Your task to perform on an android device: find snoozed emails in the gmail app Image 0: 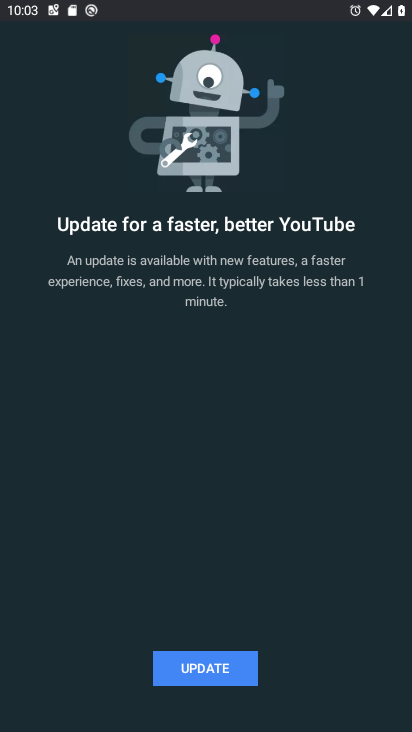
Step 0: press home button
Your task to perform on an android device: find snoozed emails in the gmail app Image 1: 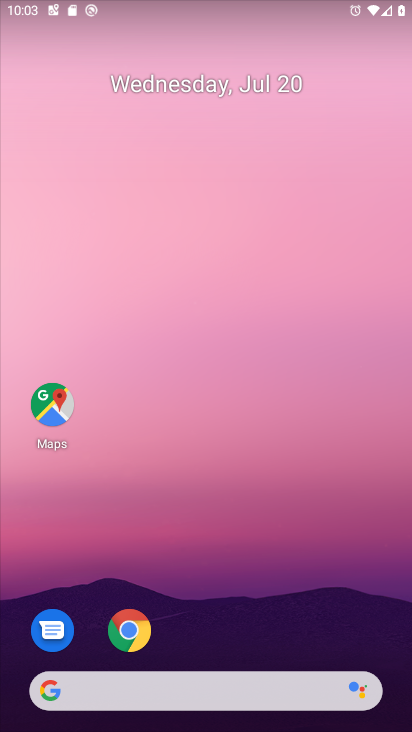
Step 1: drag from (248, 693) to (196, 93)
Your task to perform on an android device: find snoozed emails in the gmail app Image 2: 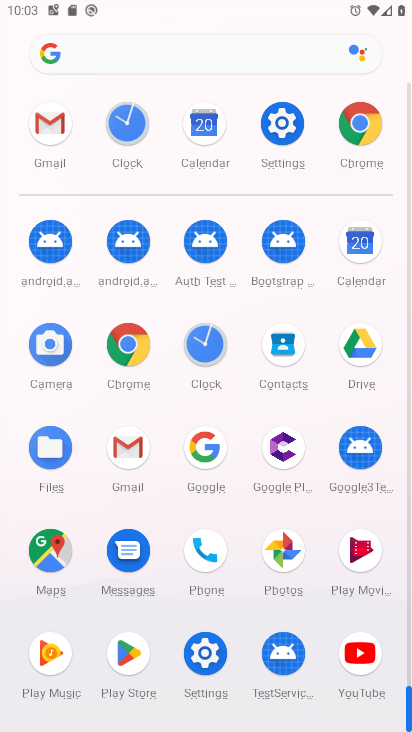
Step 2: click (133, 460)
Your task to perform on an android device: find snoozed emails in the gmail app Image 3: 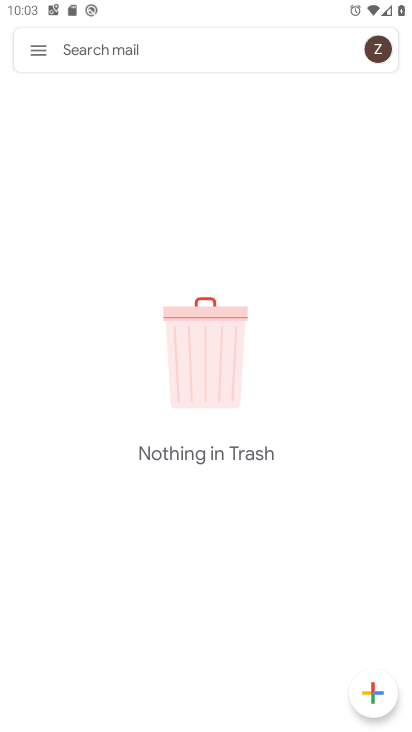
Step 3: click (32, 55)
Your task to perform on an android device: find snoozed emails in the gmail app Image 4: 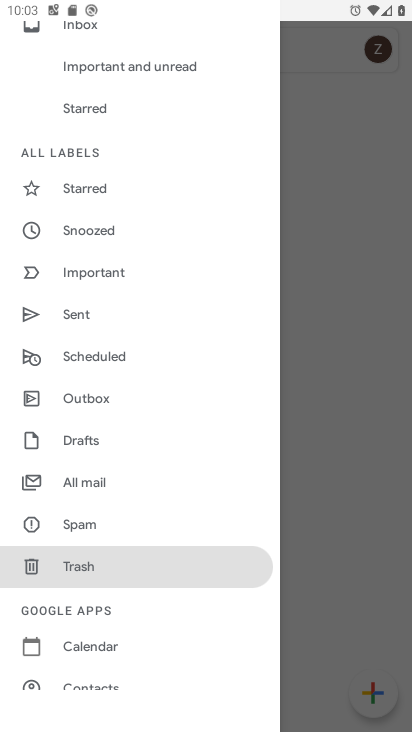
Step 4: click (77, 229)
Your task to perform on an android device: find snoozed emails in the gmail app Image 5: 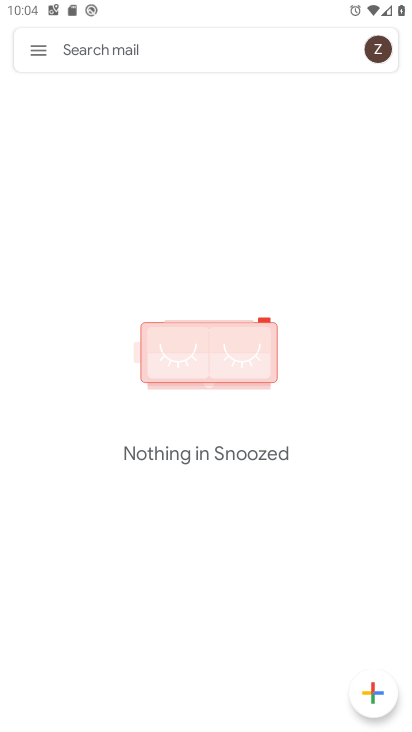
Step 5: task complete